Your task to perform on an android device: change the clock display to digital Image 0: 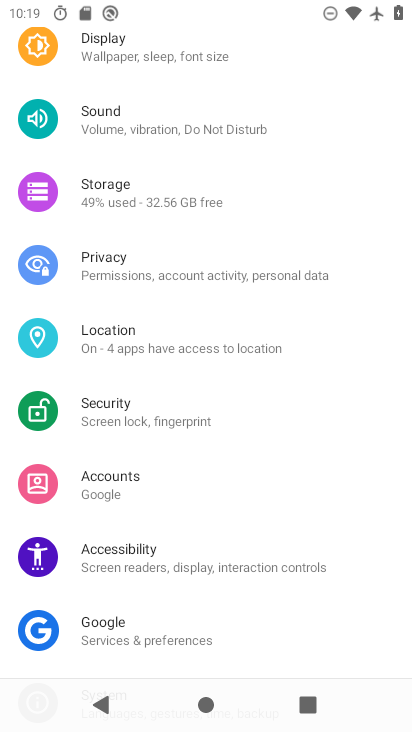
Step 0: press home button
Your task to perform on an android device: change the clock display to digital Image 1: 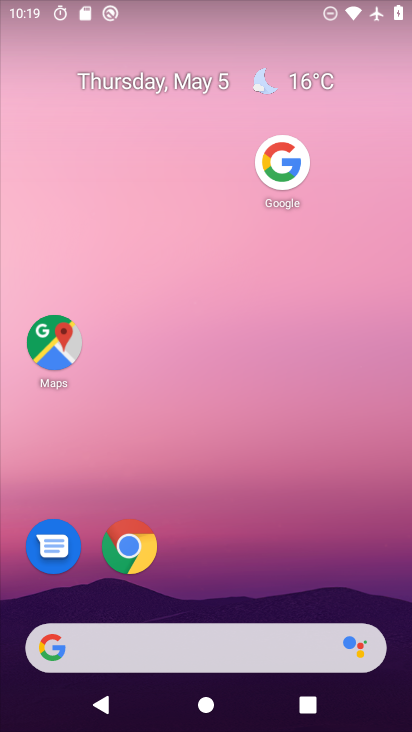
Step 1: drag from (122, 656) to (291, 129)
Your task to perform on an android device: change the clock display to digital Image 2: 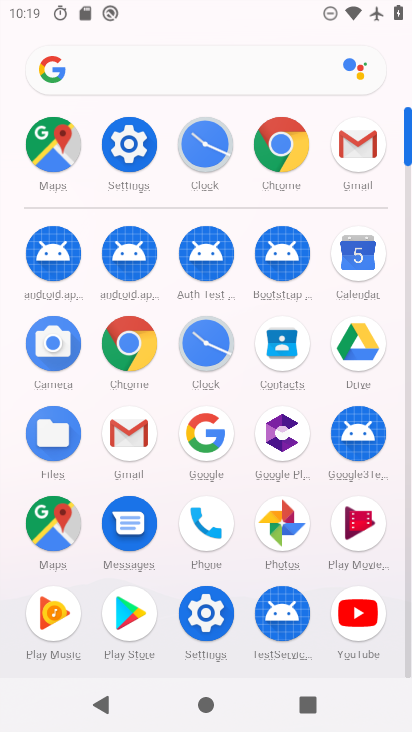
Step 2: click (211, 351)
Your task to perform on an android device: change the clock display to digital Image 3: 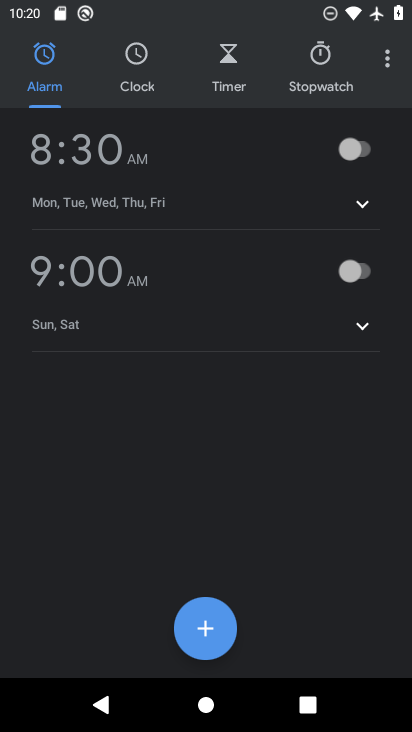
Step 3: click (385, 54)
Your task to perform on an android device: change the clock display to digital Image 4: 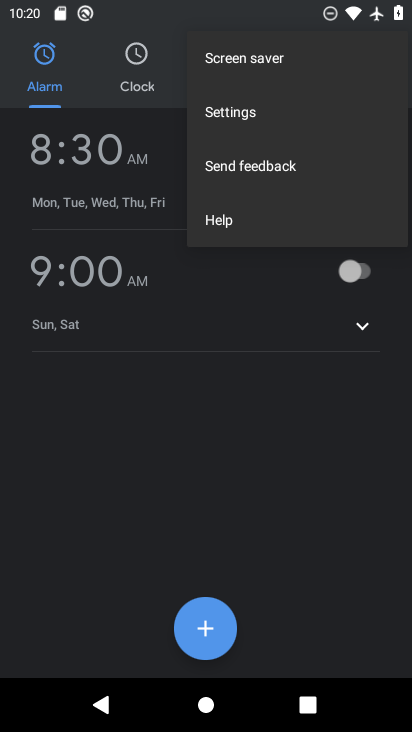
Step 4: click (247, 115)
Your task to perform on an android device: change the clock display to digital Image 5: 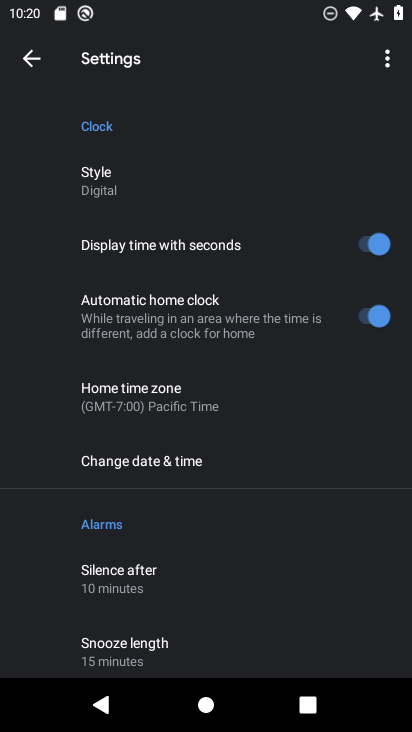
Step 5: click (111, 182)
Your task to perform on an android device: change the clock display to digital Image 6: 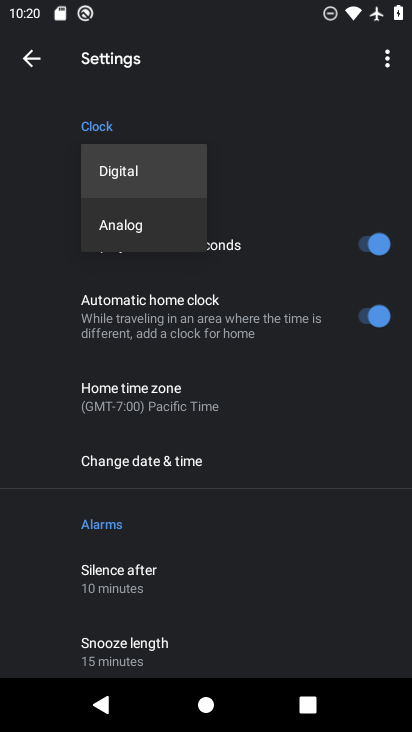
Step 6: task complete